Your task to perform on an android device: What's the news this week? Image 0: 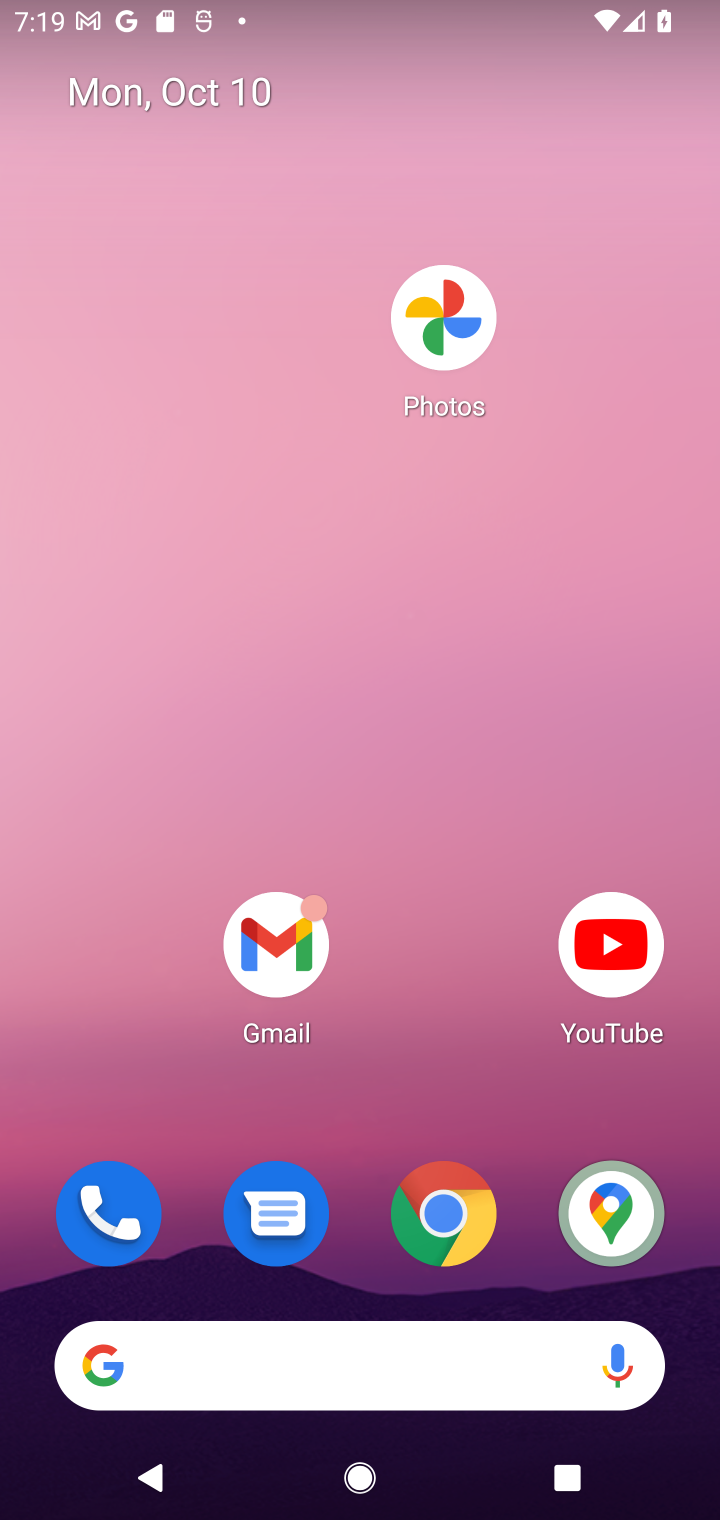
Step 0: click (402, 1372)
Your task to perform on an android device: What's the news this week? Image 1: 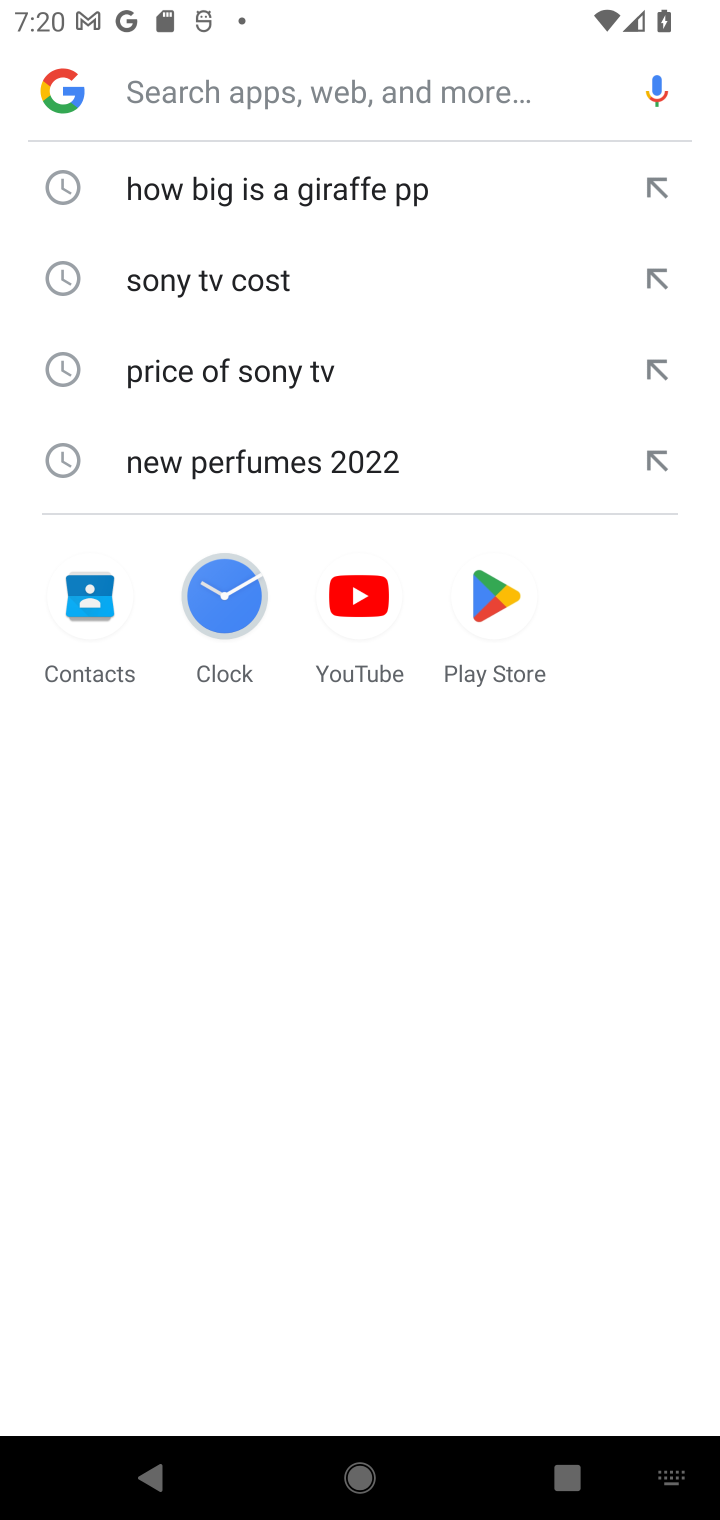
Step 1: type "news this week"
Your task to perform on an android device: What's the news this week? Image 2: 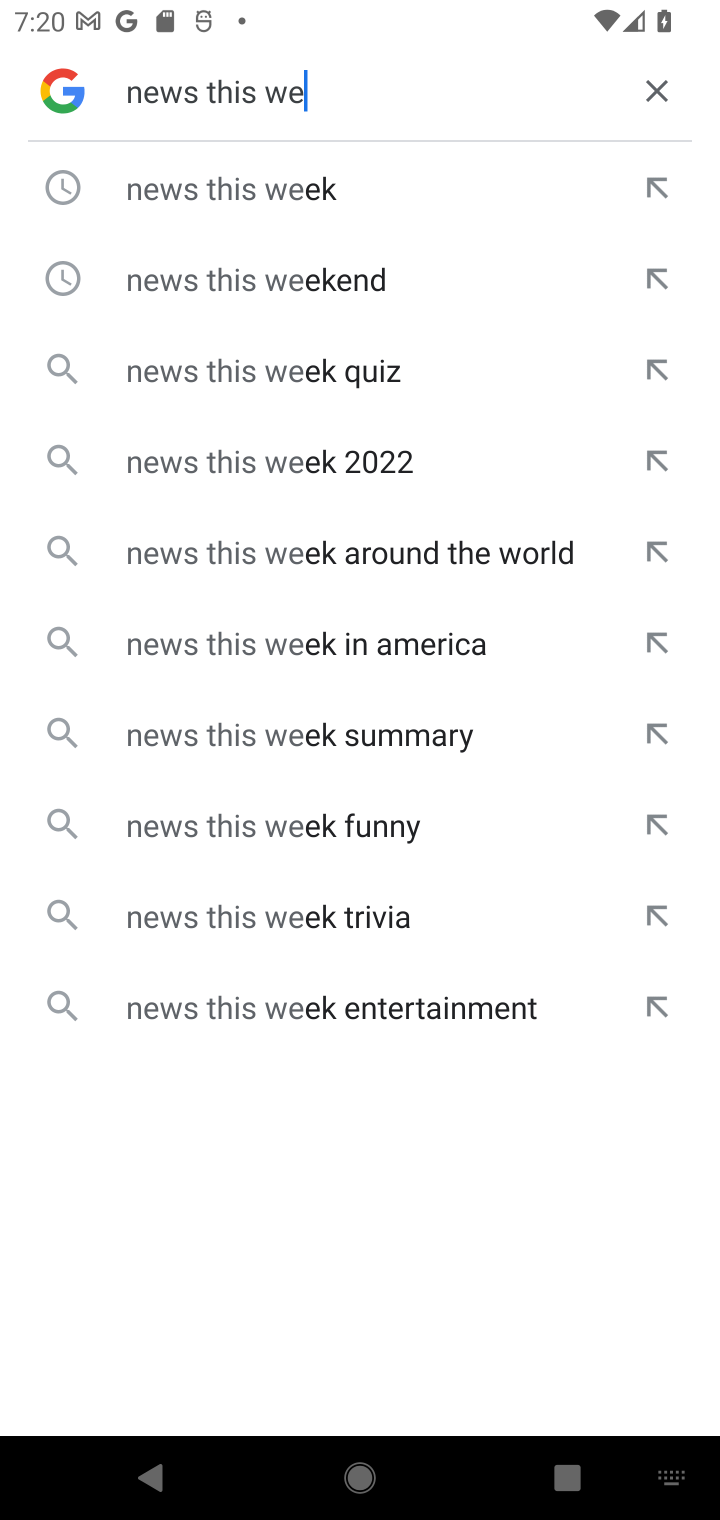
Step 2: type ""
Your task to perform on an android device: What's the news this week? Image 3: 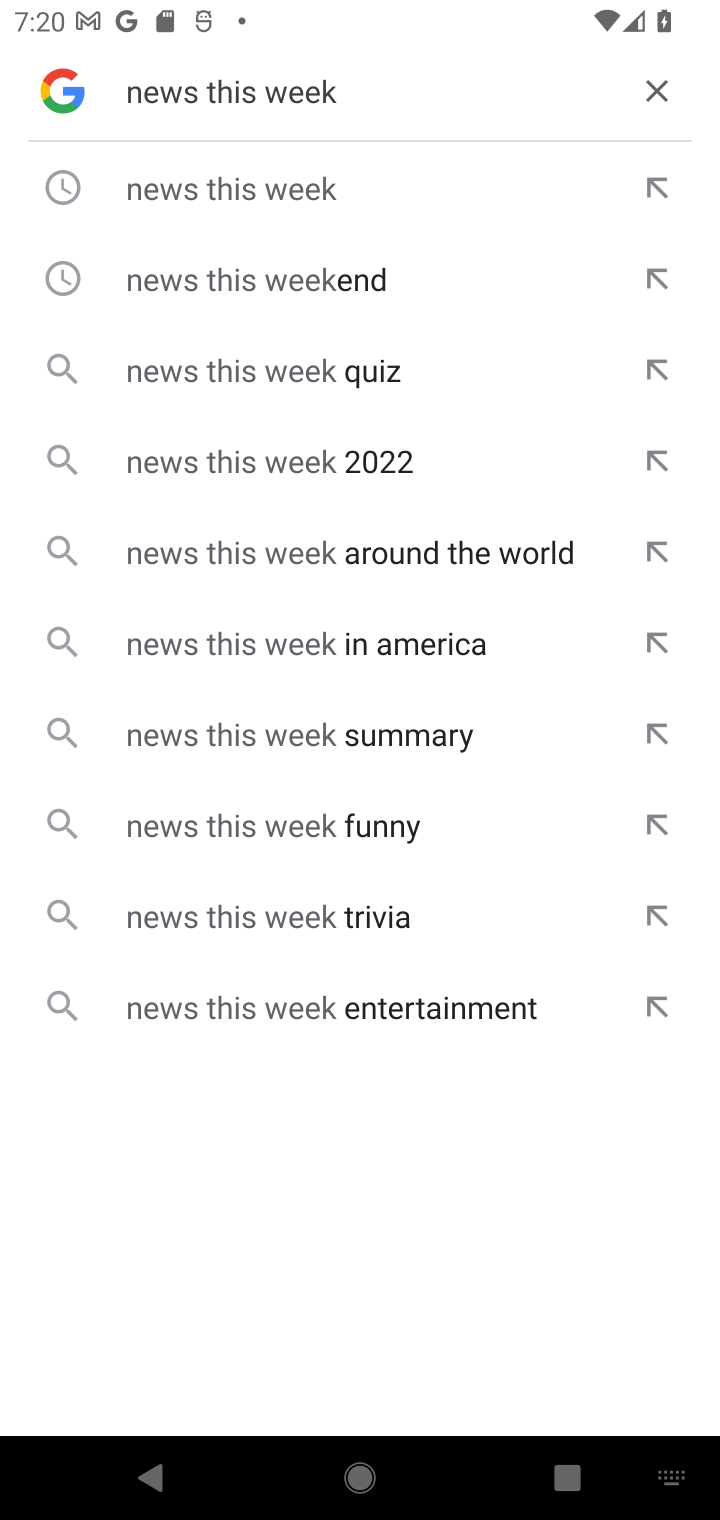
Step 3: click (335, 180)
Your task to perform on an android device: What's the news this week? Image 4: 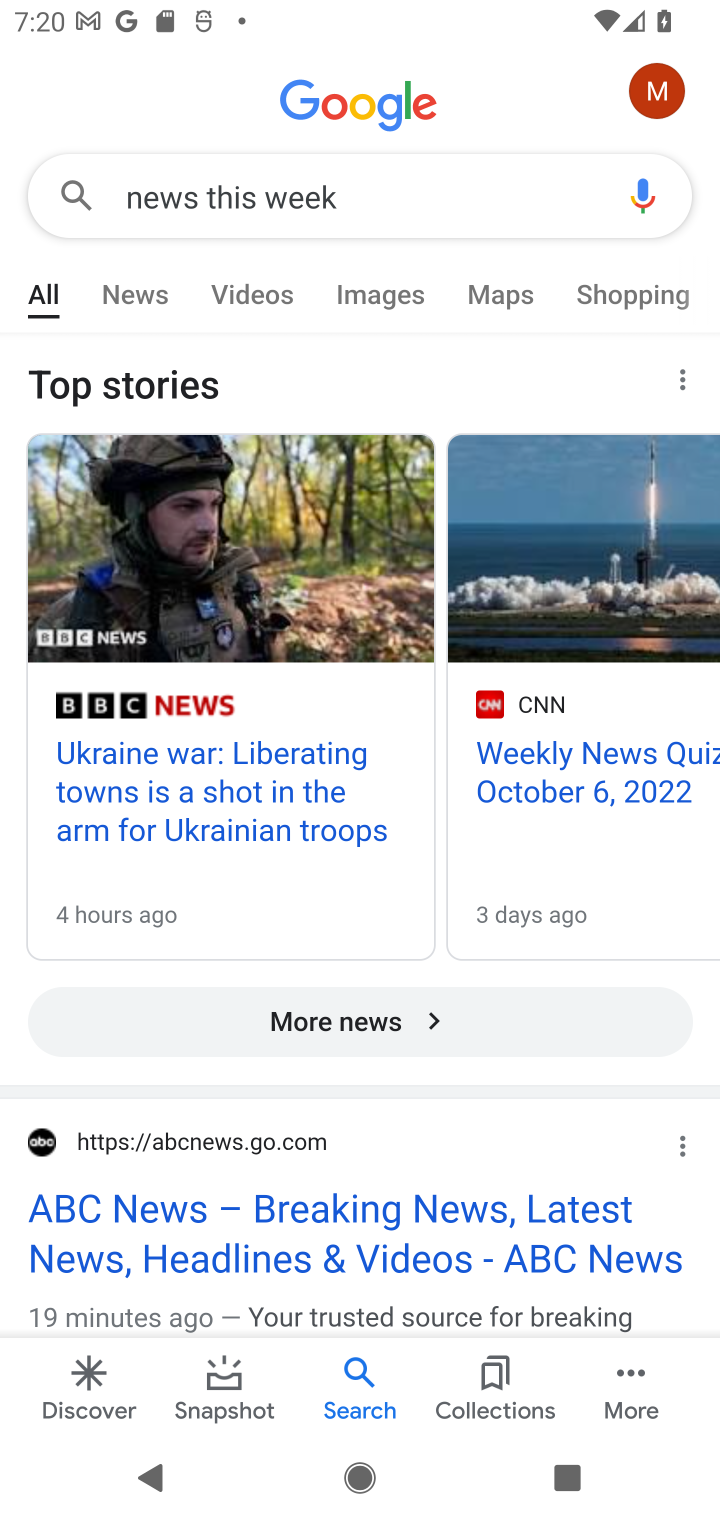
Step 4: click (129, 278)
Your task to perform on an android device: What's the news this week? Image 5: 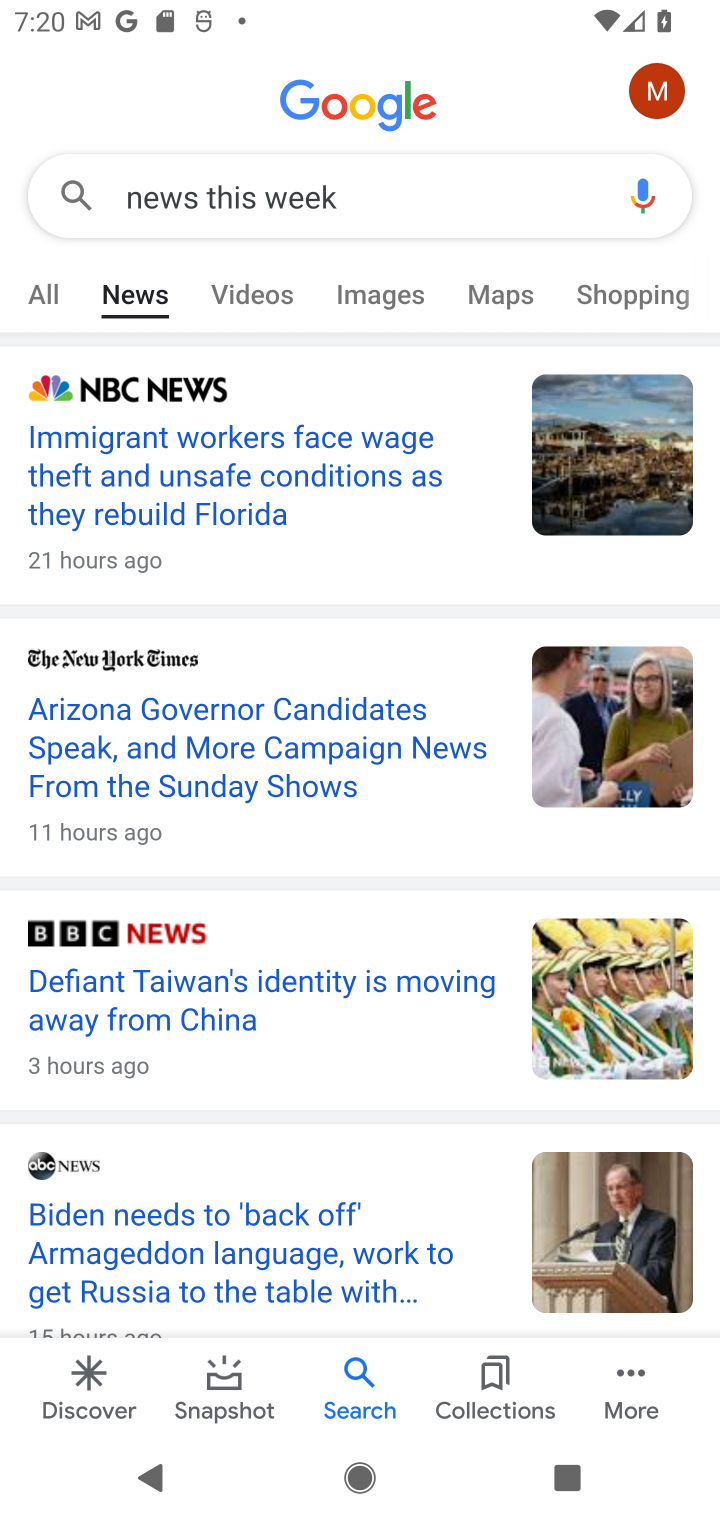
Step 5: task complete